Your task to perform on an android device: Go to privacy settings Image 0: 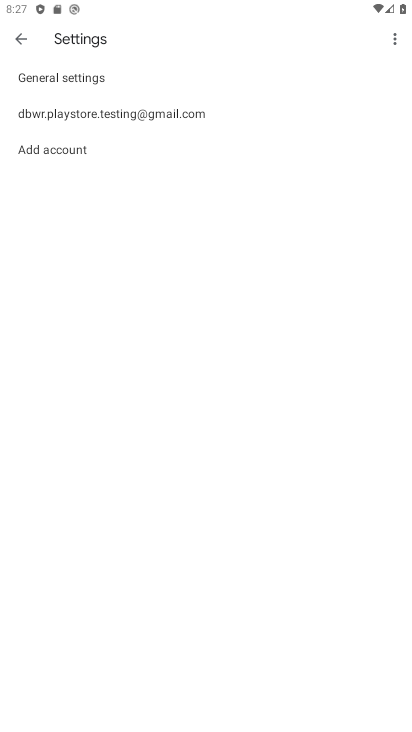
Step 0: press home button
Your task to perform on an android device: Go to privacy settings Image 1: 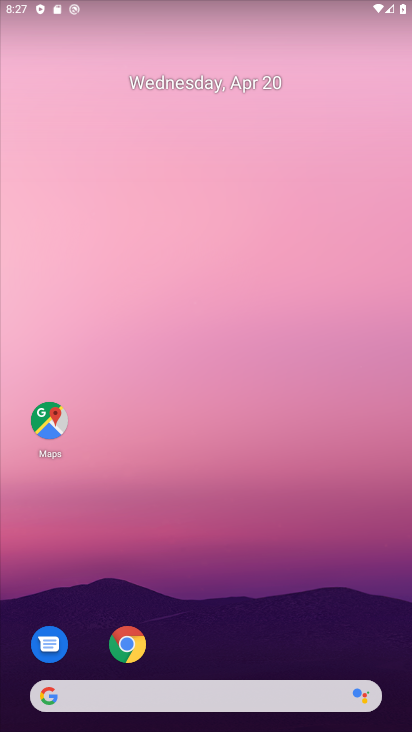
Step 1: drag from (304, 588) to (205, 58)
Your task to perform on an android device: Go to privacy settings Image 2: 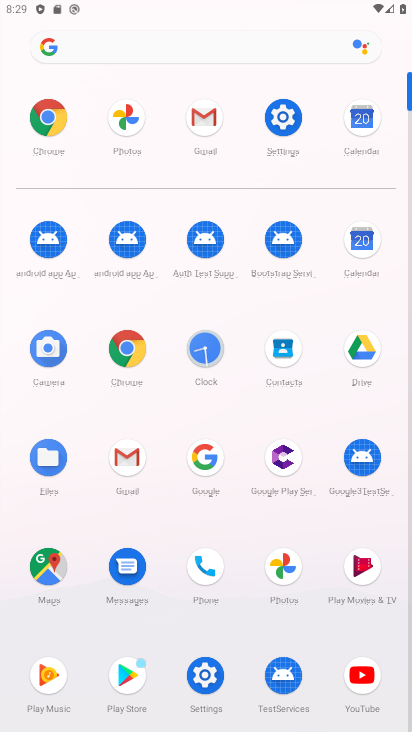
Step 2: click (200, 660)
Your task to perform on an android device: Go to privacy settings Image 3: 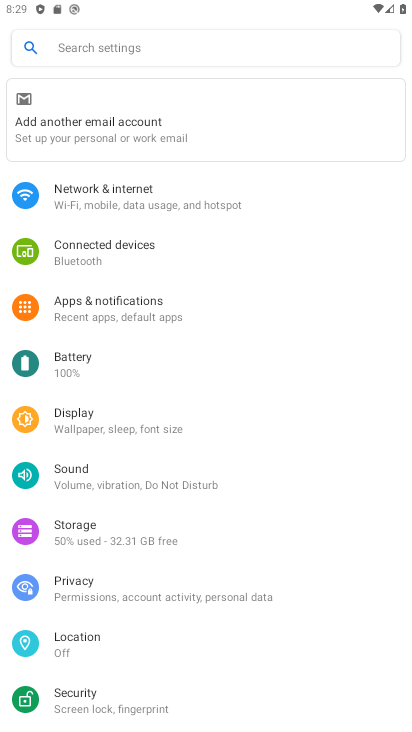
Step 3: click (89, 596)
Your task to perform on an android device: Go to privacy settings Image 4: 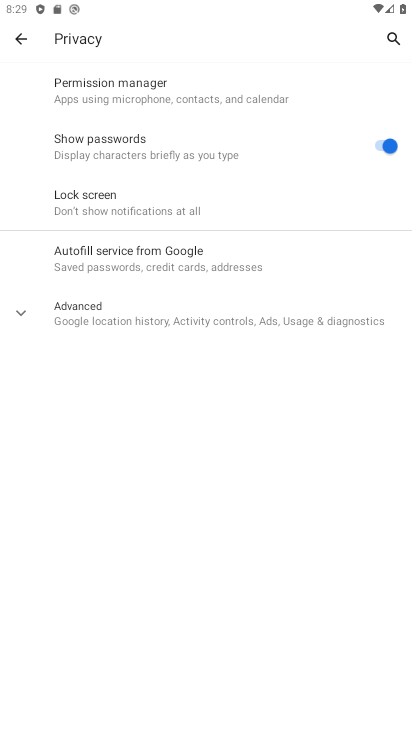
Step 4: task complete